Your task to perform on an android device: Go to Google maps Image 0: 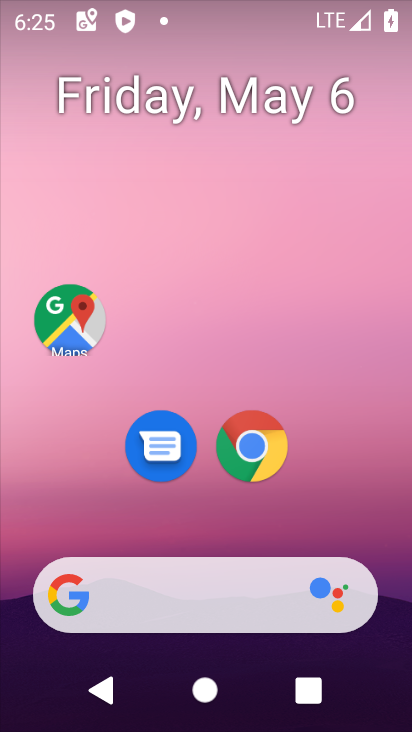
Step 0: click (83, 328)
Your task to perform on an android device: Go to Google maps Image 1: 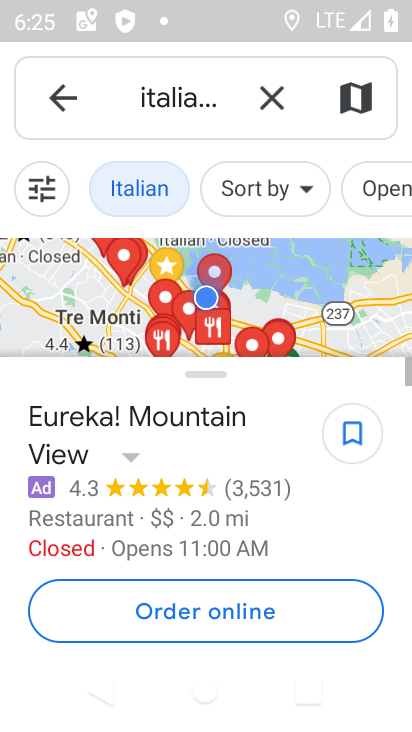
Step 1: task complete